Your task to perform on an android device: Go to CNN.com Image 0: 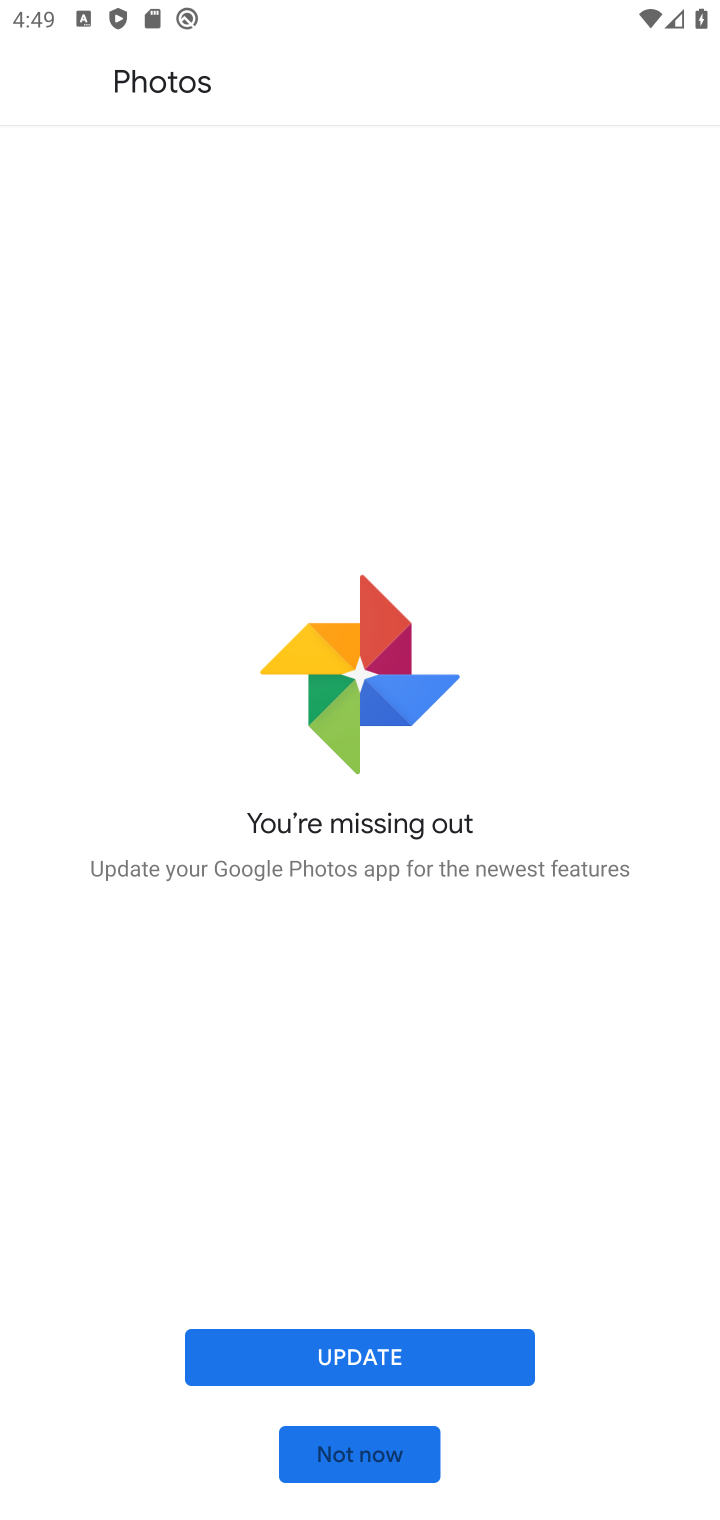
Step 0: press home button
Your task to perform on an android device: Go to CNN.com Image 1: 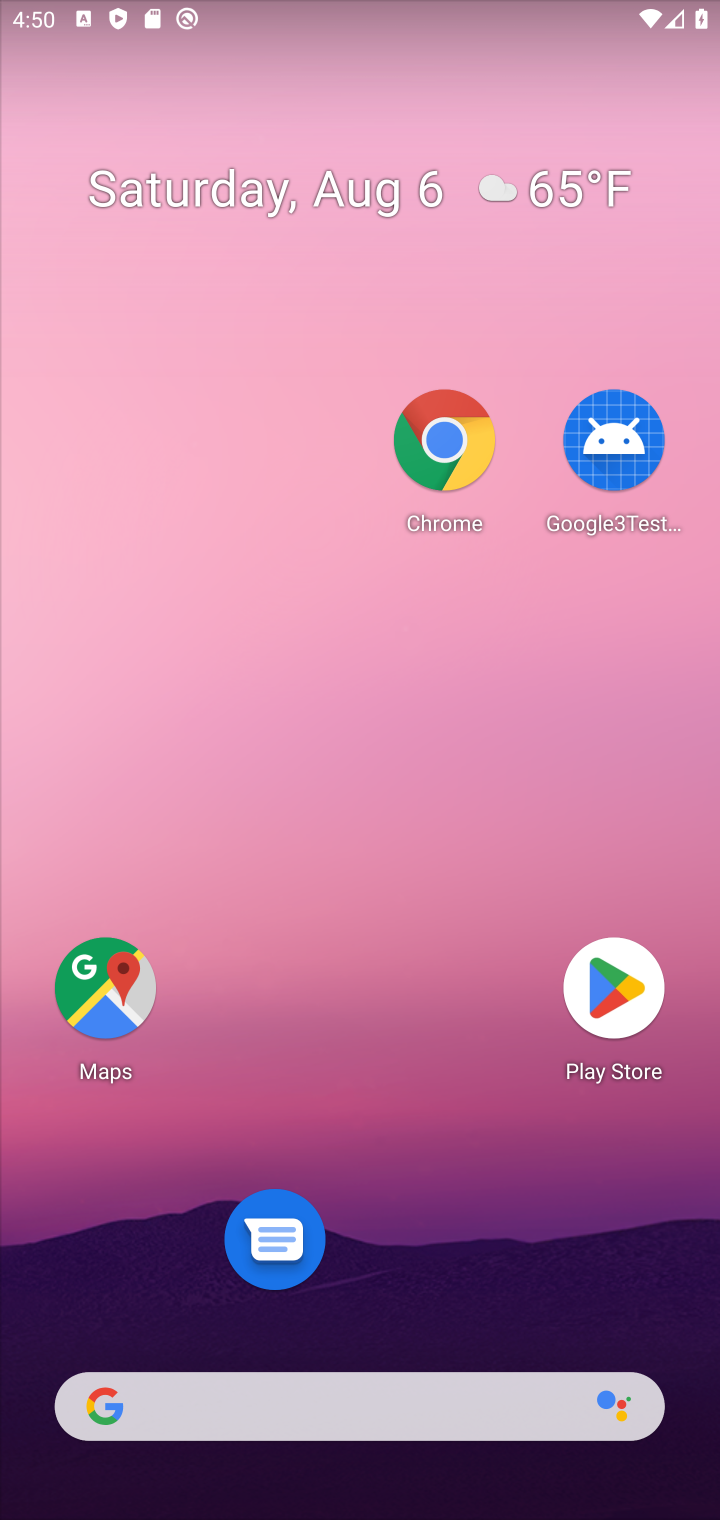
Step 1: drag from (327, 1424) to (429, 260)
Your task to perform on an android device: Go to CNN.com Image 2: 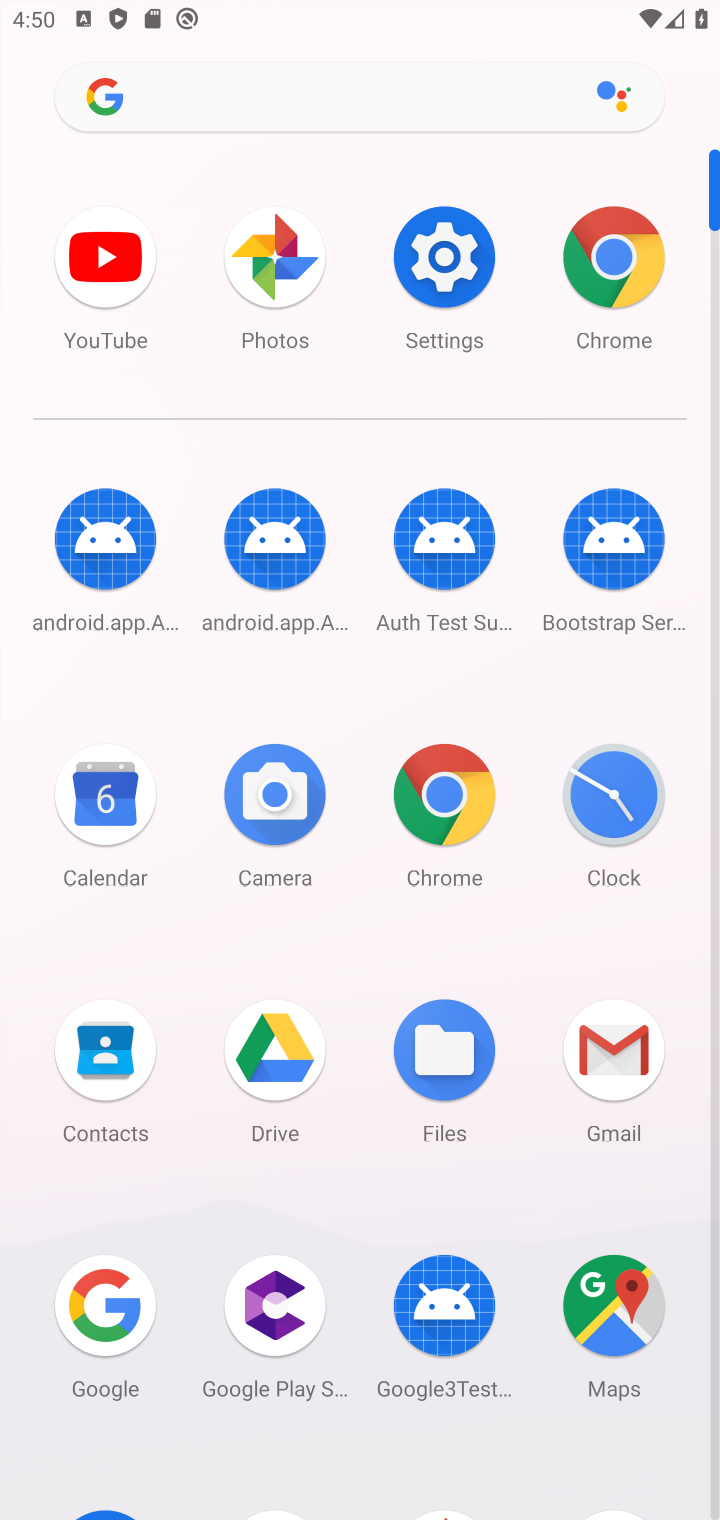
Step 2: click (426, 799)
Your task to perform on an android device: Go to CNN.com Image 3: 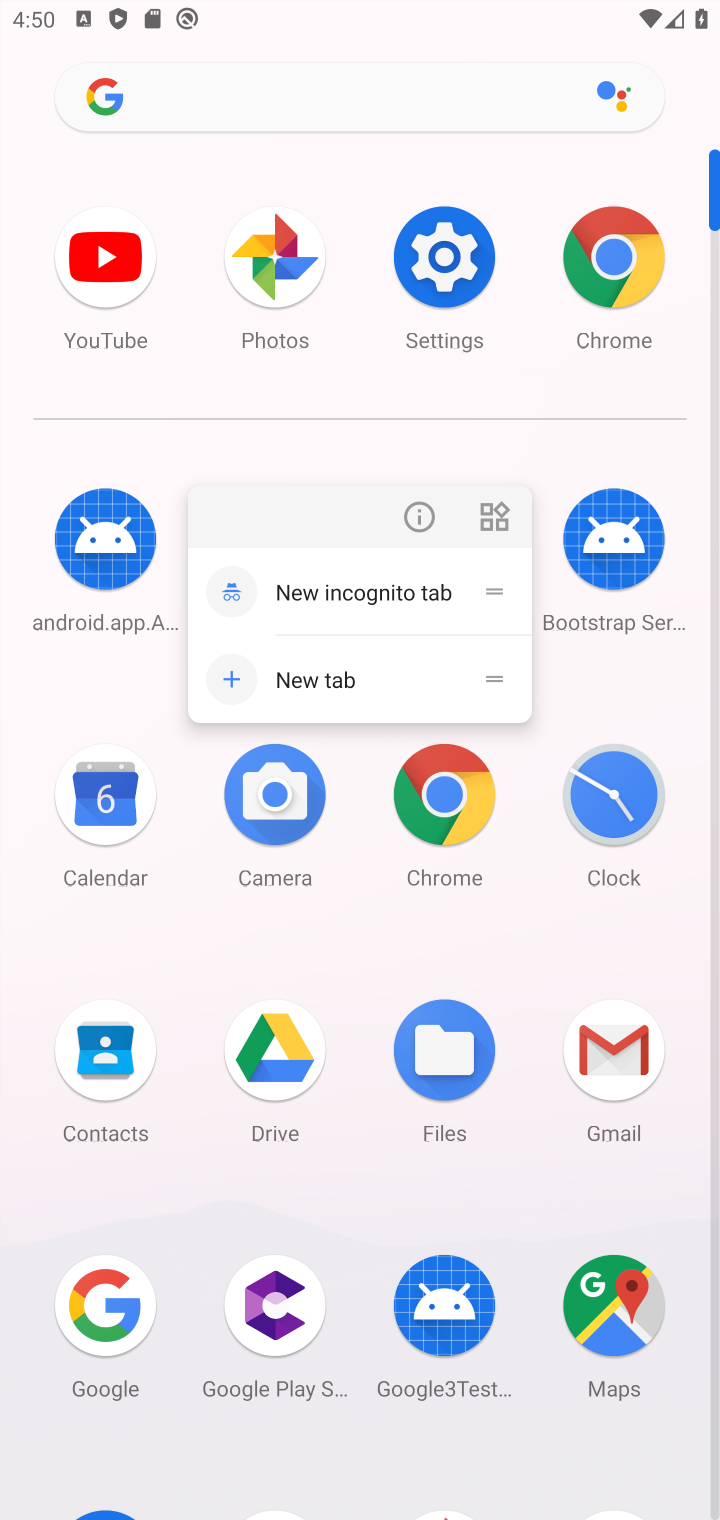
Step 3: click (416, 826)
Your task to perform on an android device: Go to CNN.com Image 4: 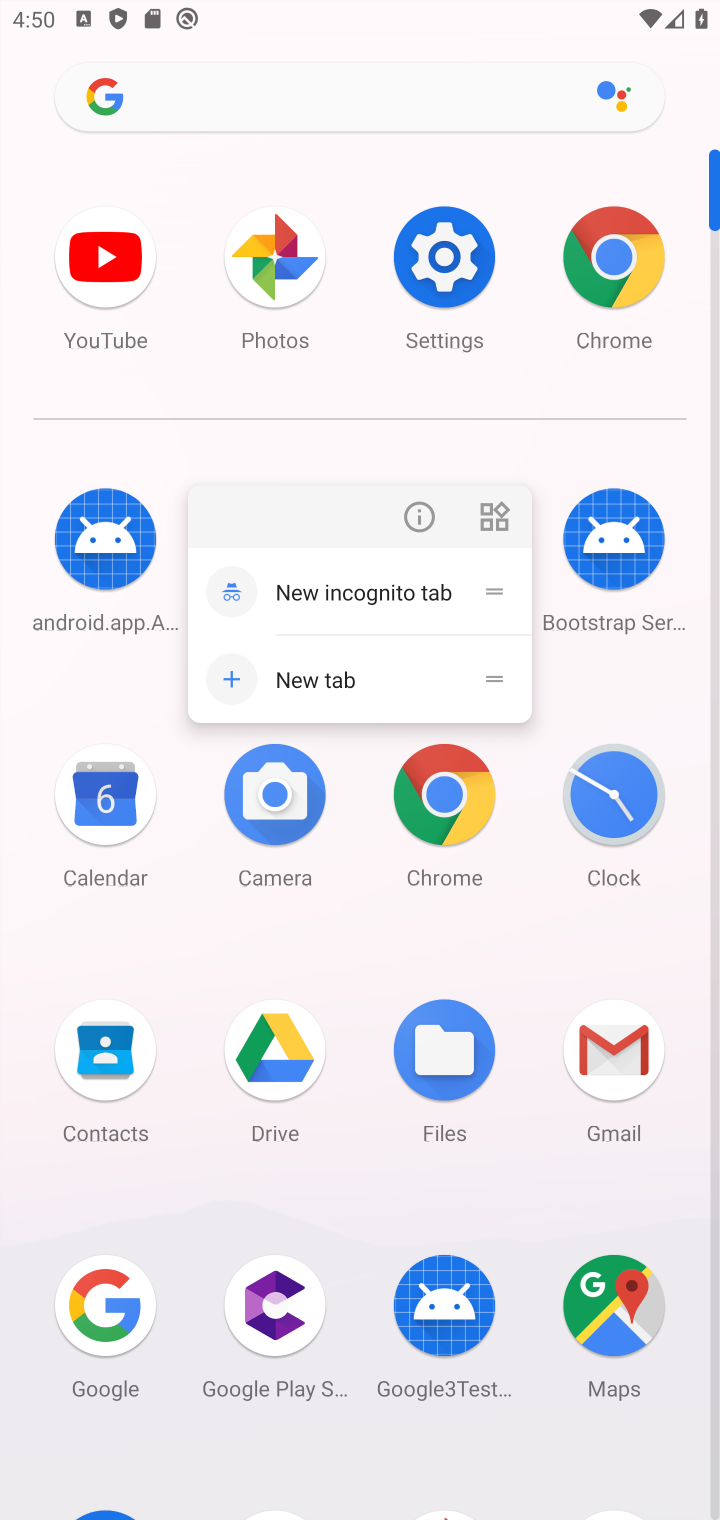
Step 4: click (448, 798)
Your task to perform on an android device: Go to CNN.com Image 5: 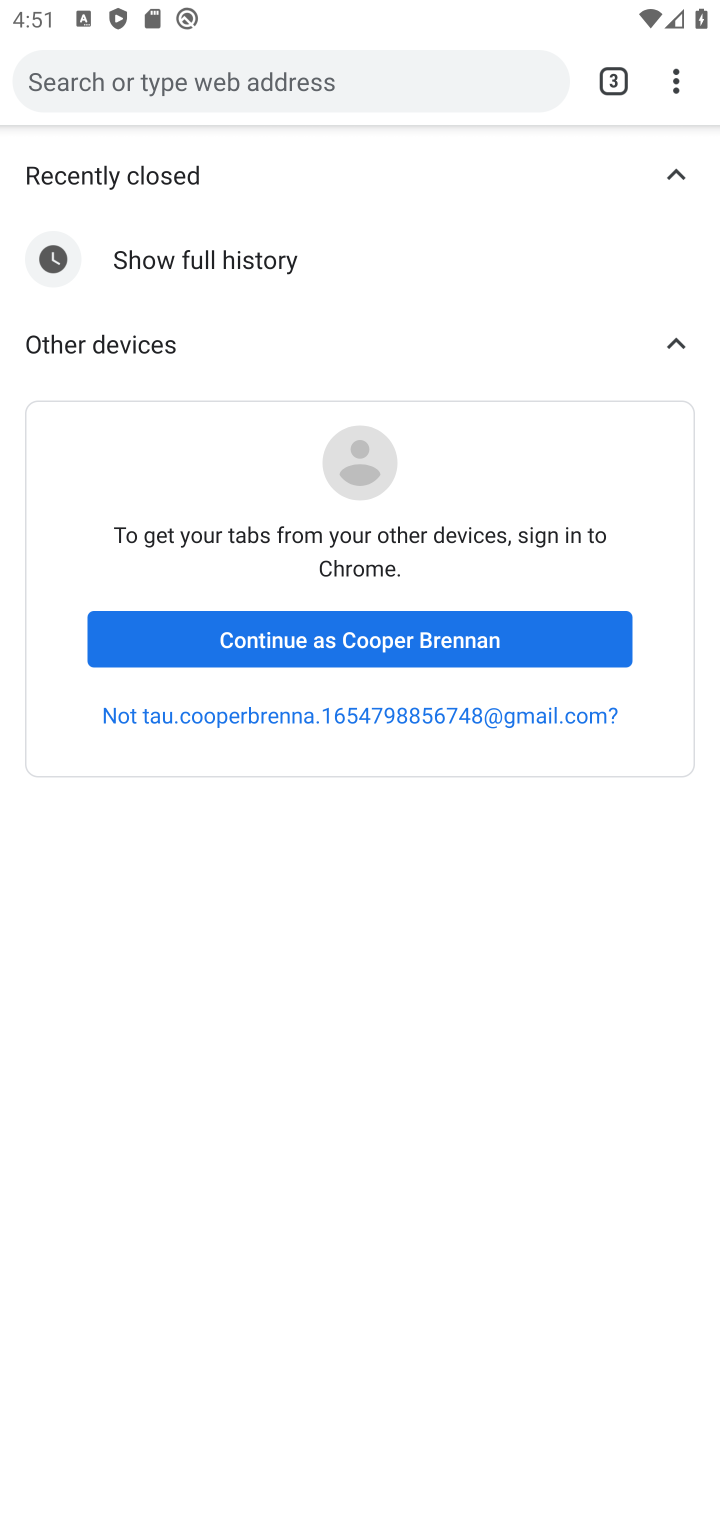
Step 5: click (304, 72)
Your task to perform on an android device: Go to CNN.com Image 6: 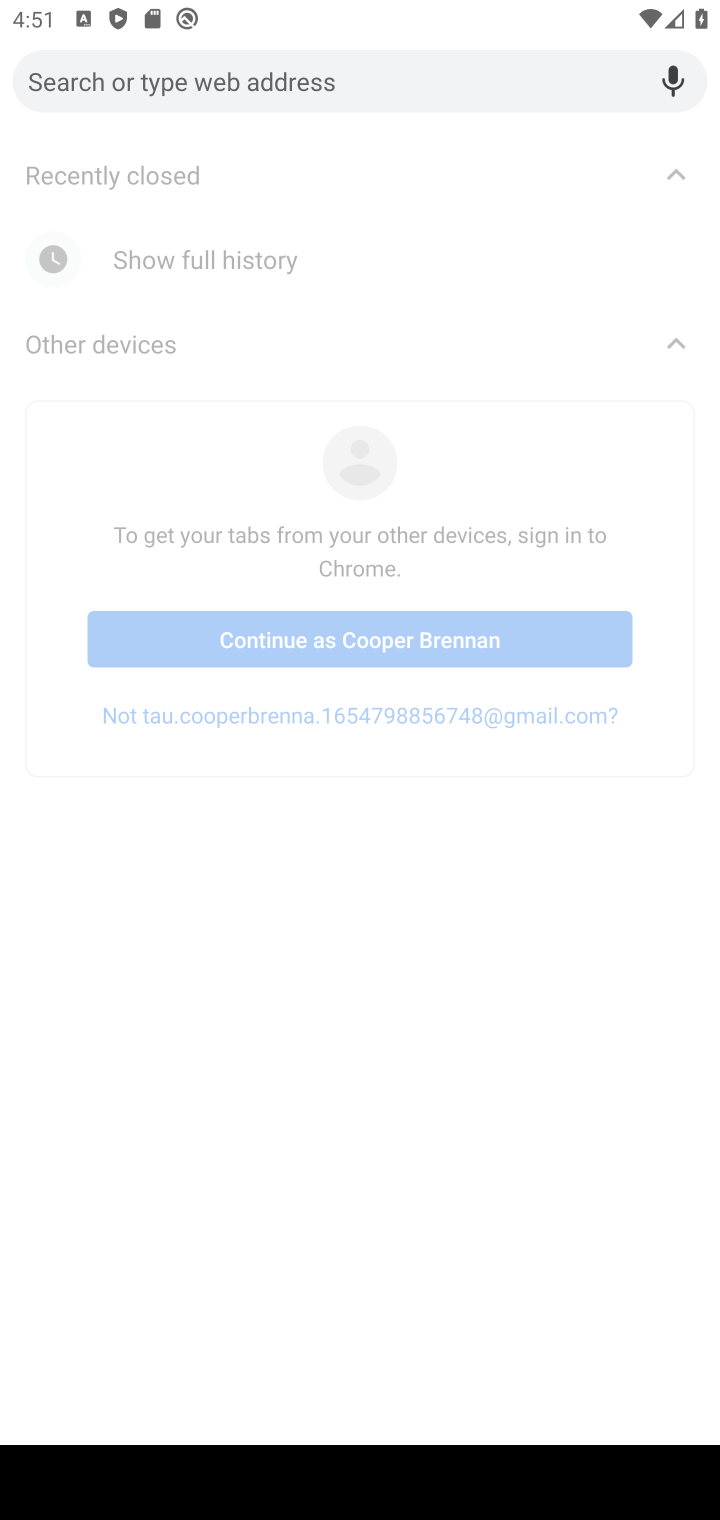
Step 6: type "cnn.com"
Your task to perform on an android device: Go to CNN.com Image 7: 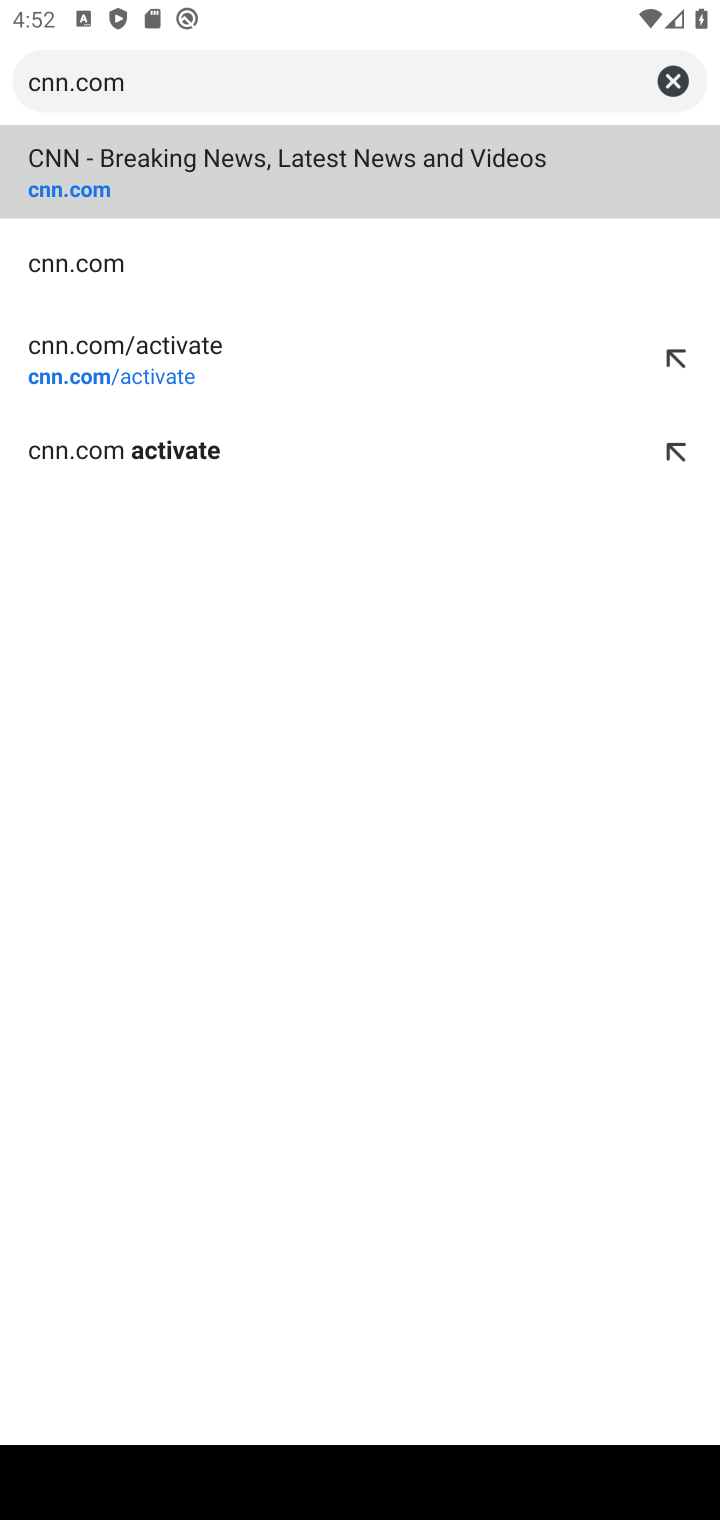
Step 7: click (472, 183)
Your task to perform on an android device: Go to CNN.com Image 8: 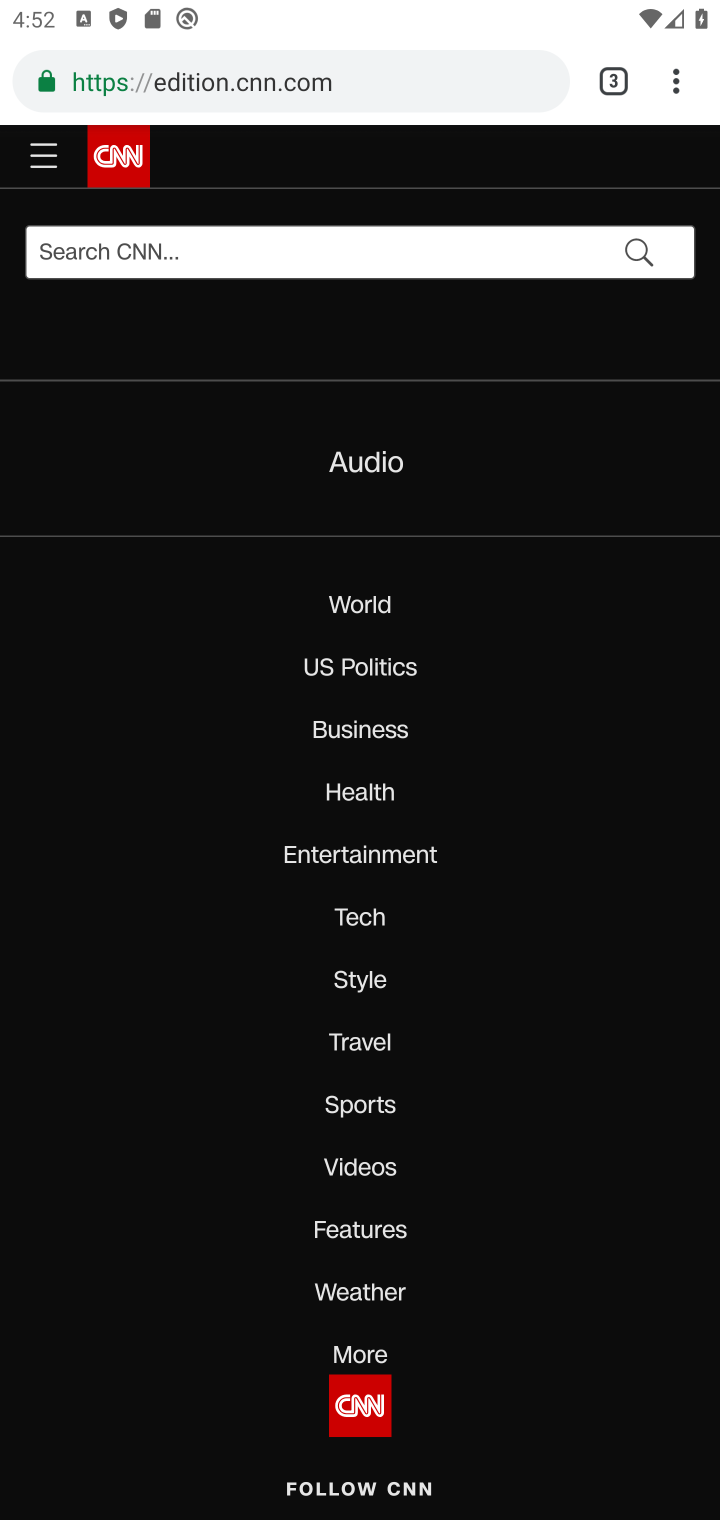
Step 8: task complete